Your task to perform on an android device: Open the calendar and show me this week's events Image 0: 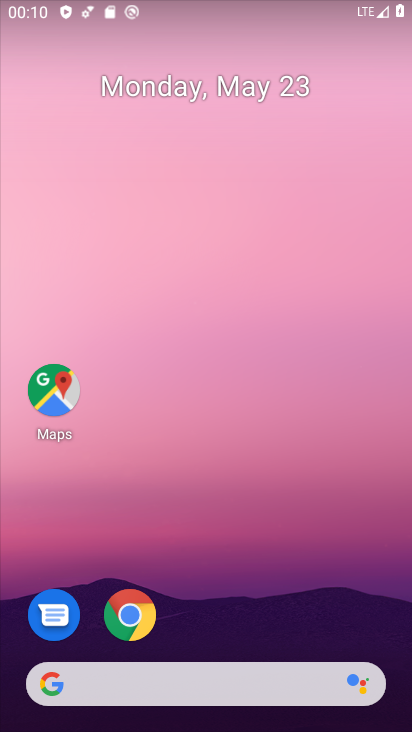
Step 0: drag from (234, 612) to (318, 60)
Your task to perform on an android device: Open the calendar and show me this week's events Image 1: 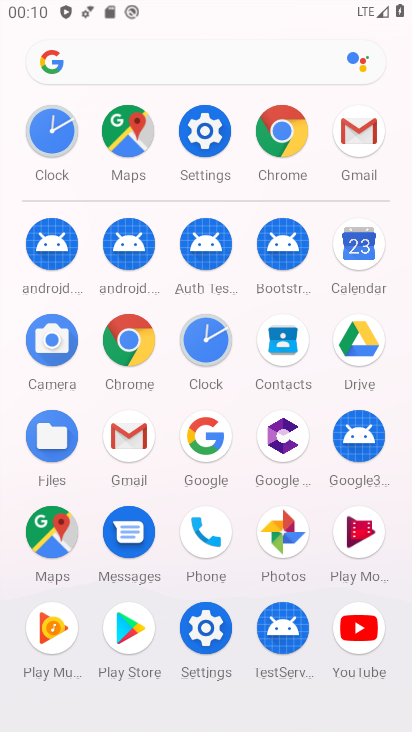
Step 1: click (353, 248)
Your task to perform on an android device: Open the calendar and show me this week's events Image 2: 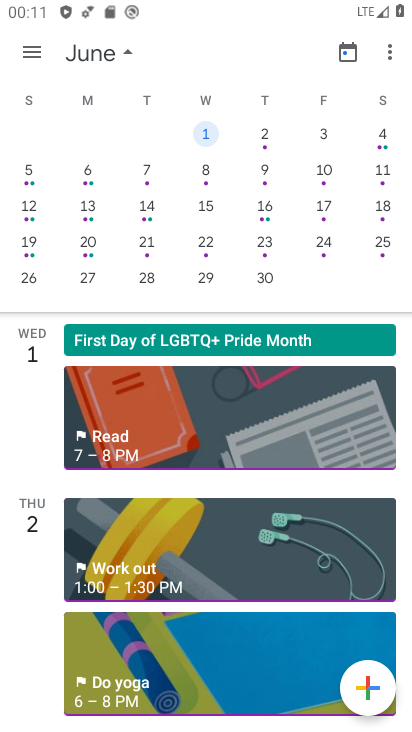
Step 2: drag from (381, 211) to (79, 187)
Your task to perform on an android device: Open the calendar and show me this week's events Image 3: 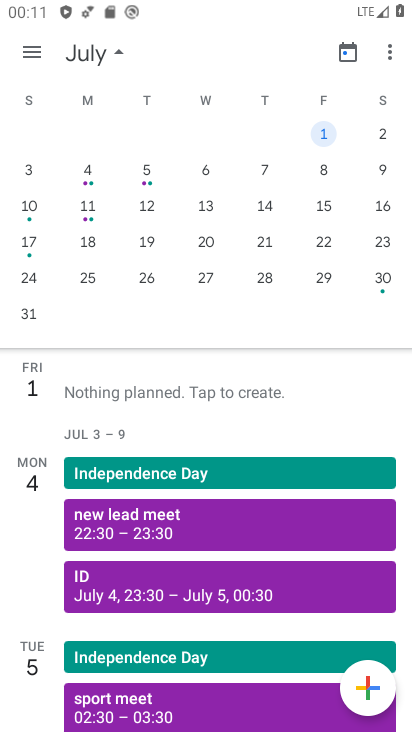
Step 3: drag from (51, 187) to (395, 206)
Your task to perform on an android device: Open the calendar and show me this week's events Image 4: 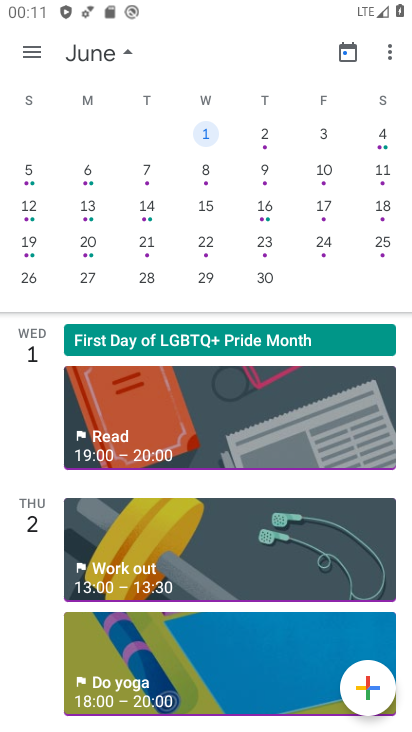
Step 4: drag from (13, 191) to (4, 263)
Your task to perform on an android device: Open the calendar and show me this week's events Image 5: 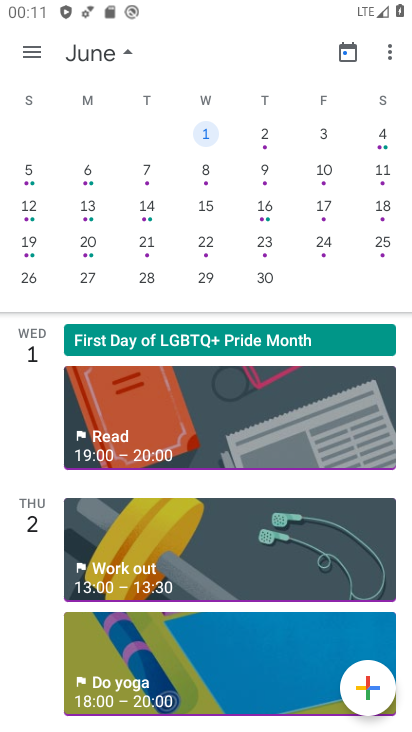
Step 5: drag from (38, 215) to (405, 216)
Your task to perform on an android device: Open the calendar and show me this week's events Image 6: 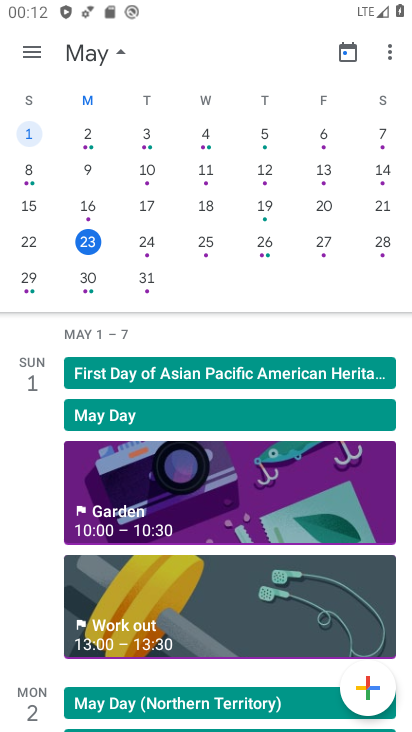
Step 6: click (89, 243)
Your task to perform on an android device: Open the calendar and show me this week's events Image 7: 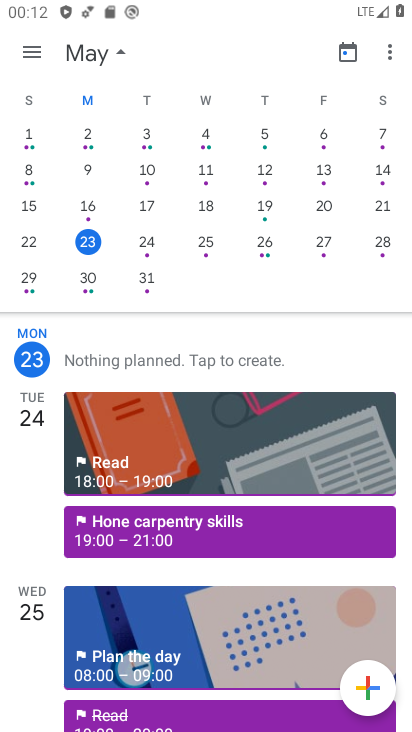
Step 7: drag from (170, 622) to (270, 24)
Your task to perform on an android device: Open the calendar and show me this week's events Image 8: 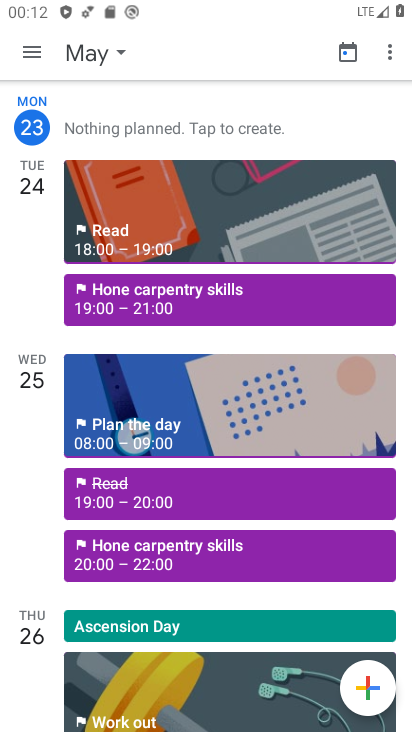
Step 8: click (198, 621)
Your task to perform on an android device: Open the calendar and show me this week's events Image 9: 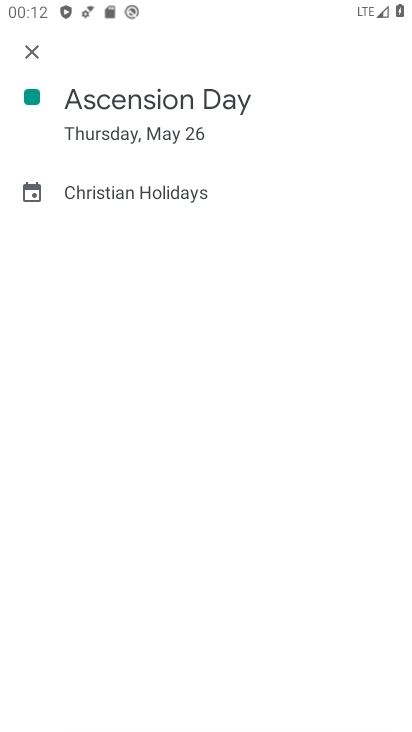
Step 9: task complete